Your task to perform on an android device: turn on showing notifications on the lock screen Image 0: 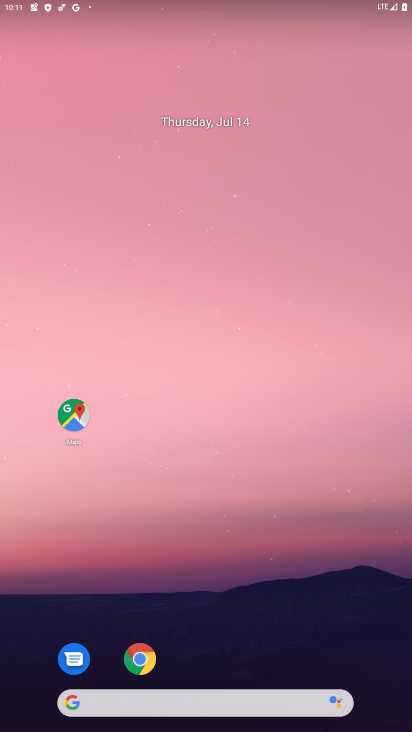
Step 0: drag from (334, 608) to (248, 152)
Your task to perform on an android device: turn on showing notifications on the lock screen Image 1: 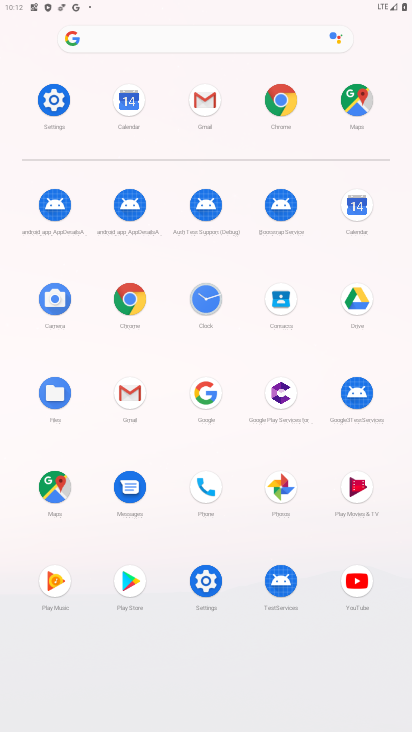
Step 1: click (56, 104)
Your task to perform on an android device: turn on showing notifications on the lock screen Image 2: 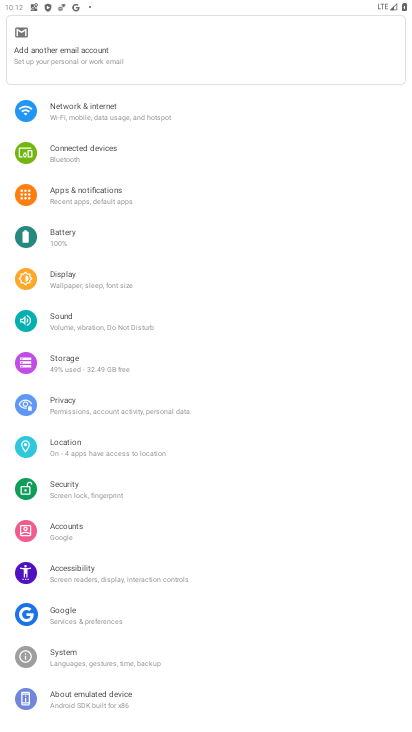
Step 2: click (104, 192)
Your task to perform on an android device: turn on showing notifications on the lock screen Image 3: 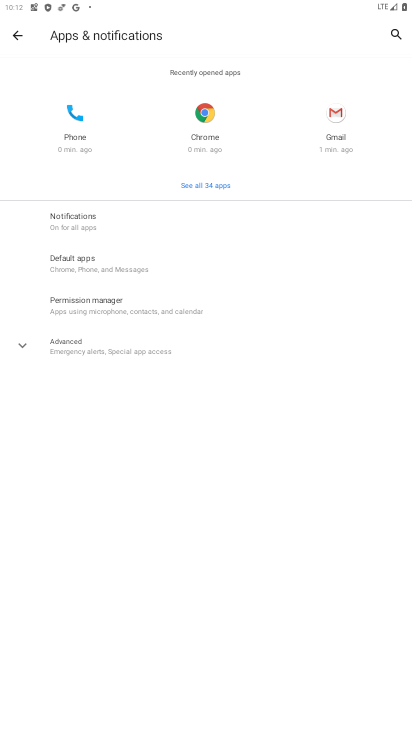
Step 3: click (84, 217)
Your task to perform on an android device: turn on showing notifications on the lock screen Image 4: 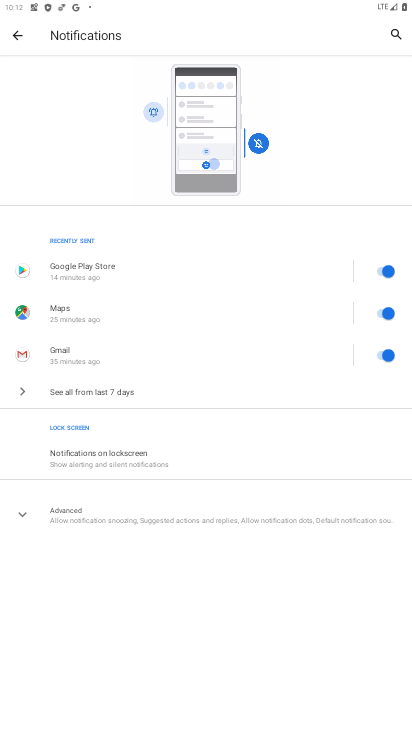
Step 4: click (125, 455)
Your task to perform on an android device: turn on showing notifications on the lock screen Image 5: 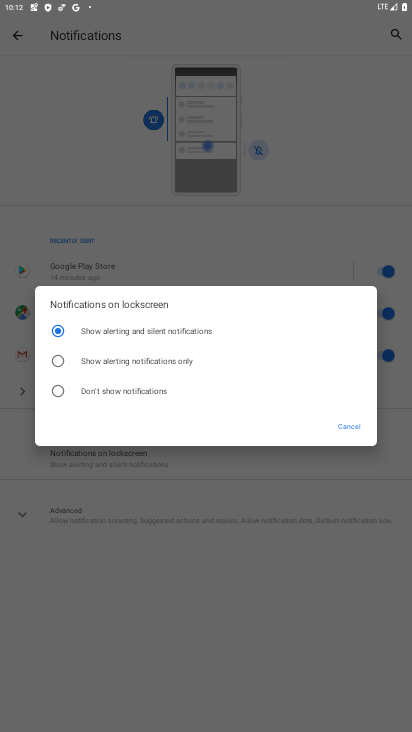
Step 5: click (144, 359)
Your task to perform on an android device: turn on showing notifications on the lock screen Image 6: 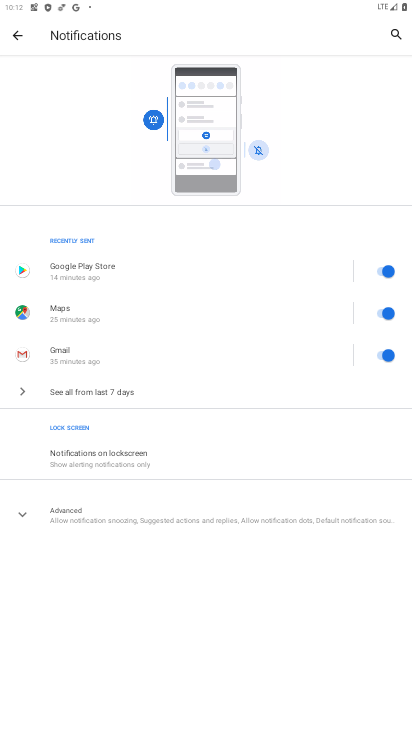
Step 6: task complete